Your task to perform on an android device: Open my contact list Image 0: 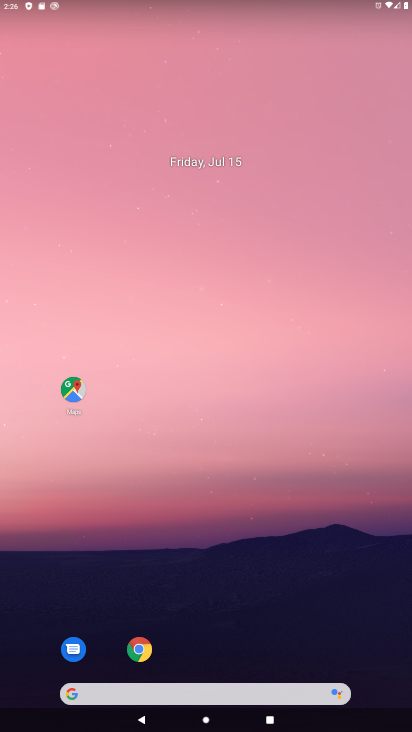
Step 0: drag from (198, 658) to (337, 134)
Your task to perform on an android device: Open my contact list Image 1: 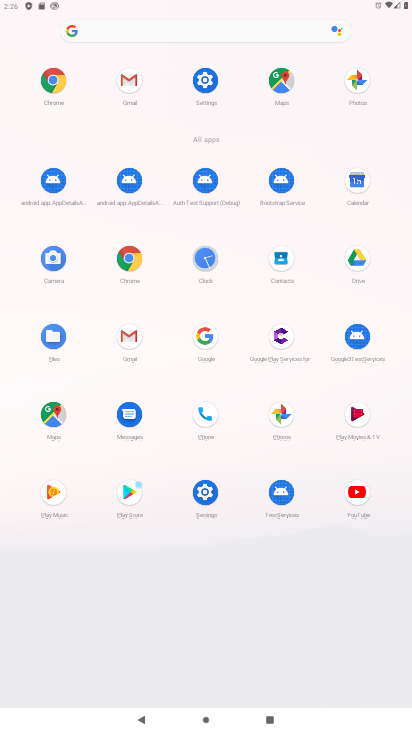
Step 1: click (285, 264)
Your task to perform on an android device: Open my contact list Image 2: 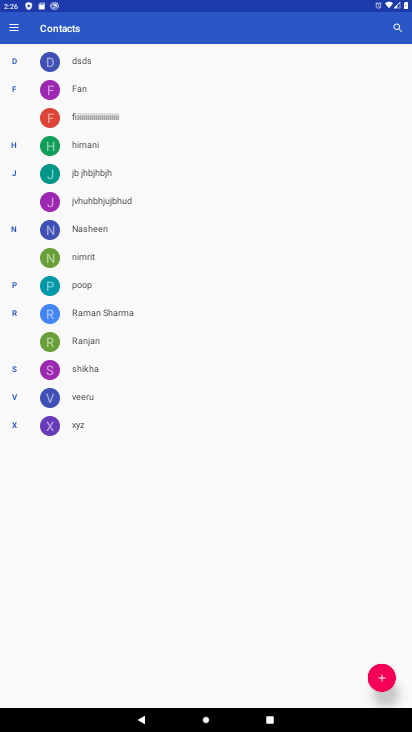
Step 2: task complete